Your task to perform on an android device: Open Android settings Image 0: 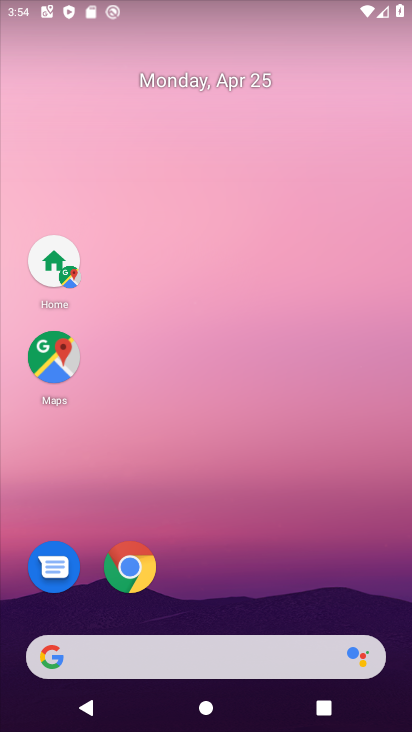
Step 0: drag from (204, 505) to (302, 72)
Your task to perform on an android device: Open Android settings Image 1: 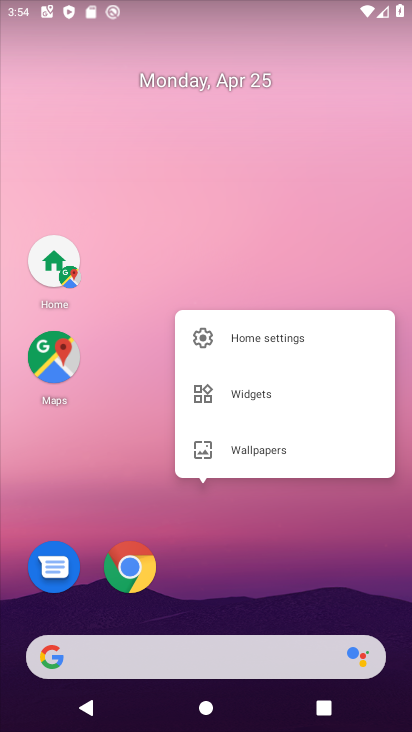
Step 1: click (115, 431)
Your task to perform on an android device: Open Android settings Image 2: 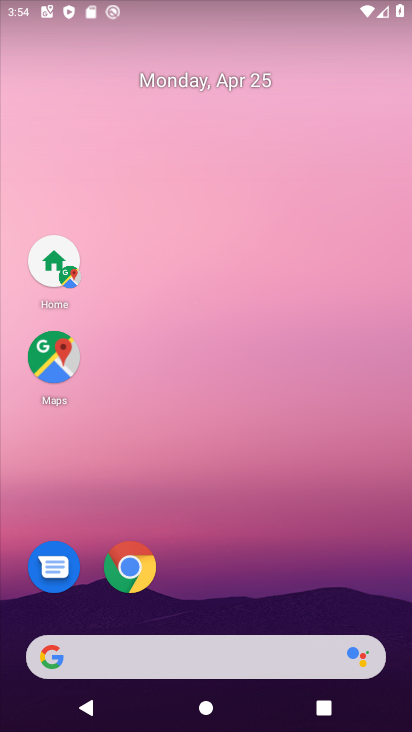
Step 2: drag from (243, 580) to (250, 20)
Your task to perform on an android device: Open Android settings Image 3: 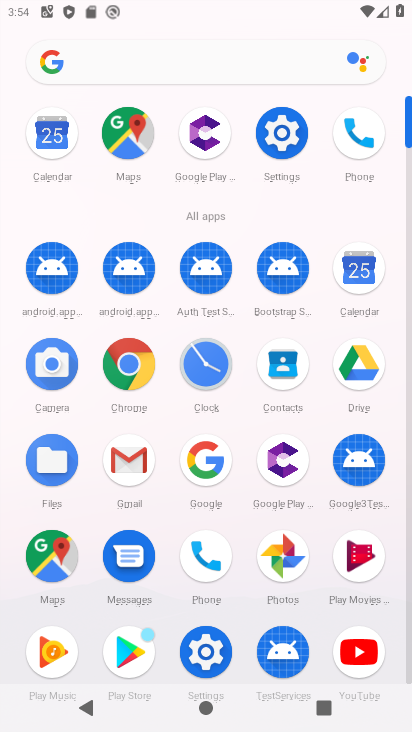
Step 3: click (276, 160)
Your task to perform on an android device: Open Android settings Image 4: 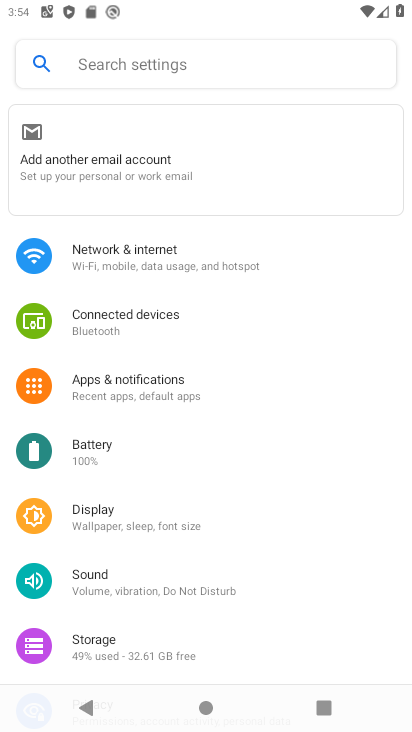
Step 4: drag from (280, 500) to (286, 245)
Your task to perform on an android device: Open Android settings Image 5: 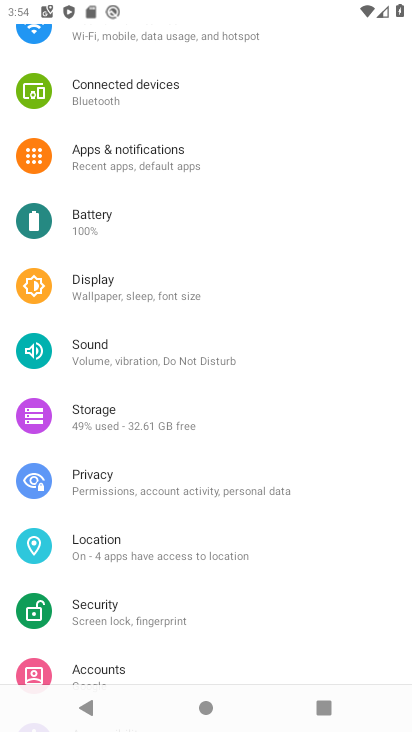
Step 5: drag from (297, 530) to (313, 429)
Your task to perform on an android device: Open Android settings Image 6: 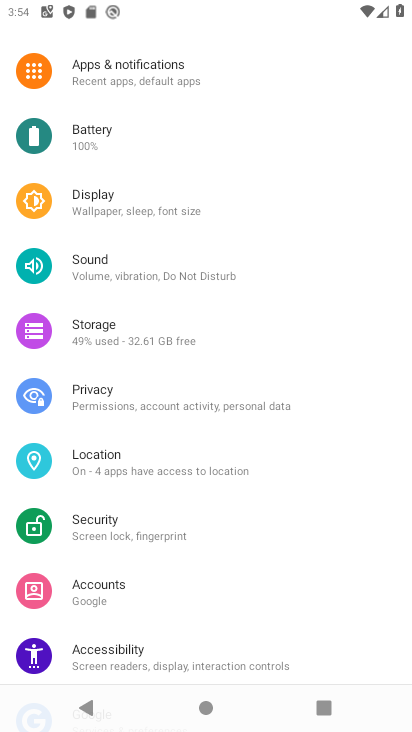
Step 6: drag from (222, 602) to (222, 516)
Your task to perform on an android device: Open Android settings Image 7: 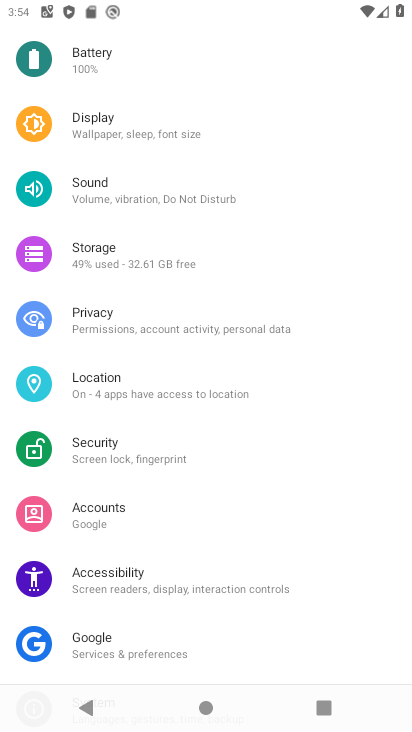
Step 7: drag from (179, 599) to (256, 341)
Your task to perform on an android device: Open Android settings Image 8: 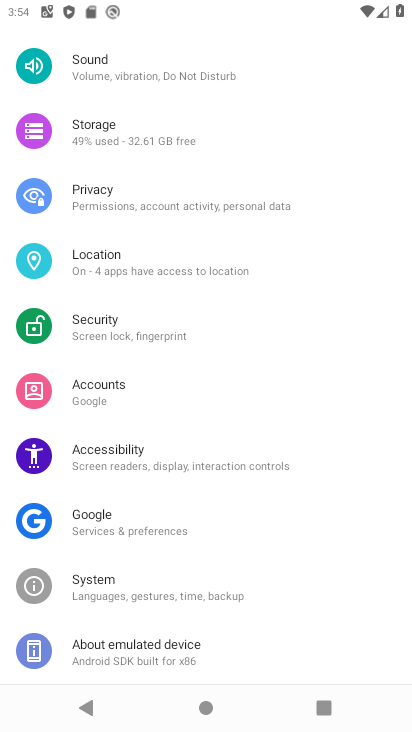
Step 8: click (139, 647)
Your task to perform on an android device: Open Android settings Image 9: 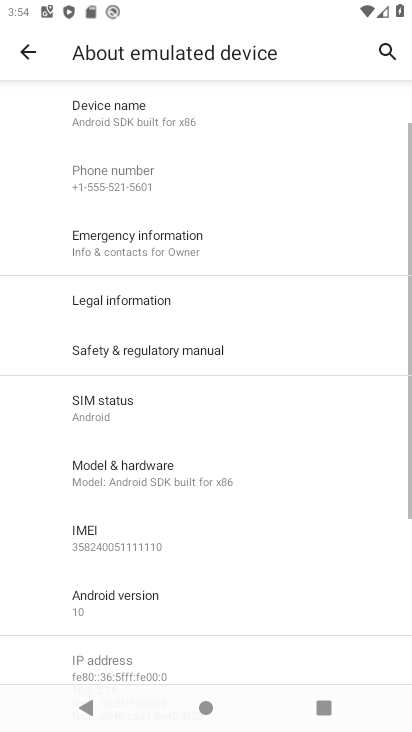
Step 9: drag from (288, 604) to (368, 173)
Your task to perform on an android device: Open Android settings Image 10: 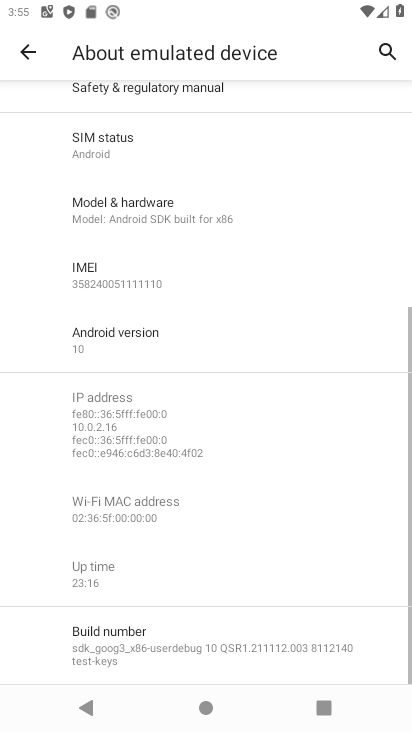
Step 10: click (166, 335)
Your task to perform on an android device: Open Android settings Image 11: 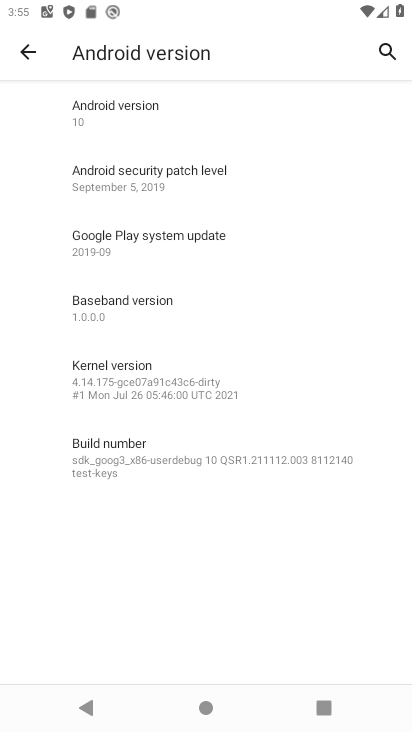
Step 11: task complete